Your task to perform on an android device: Open Youtube and go to the subscriptions tab Image 0: 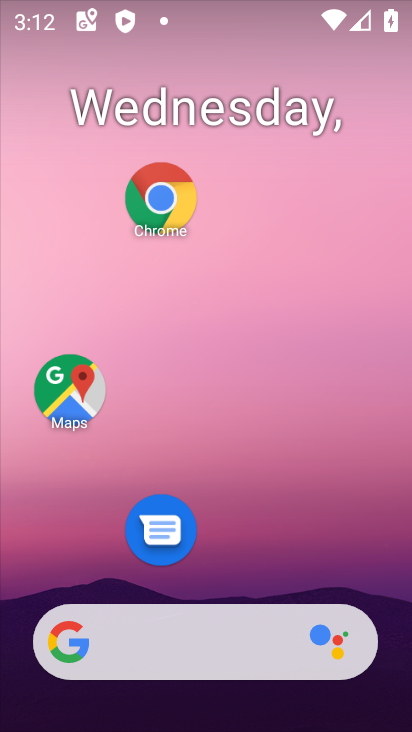
Step 0: click (409, 522)
Your task to perform on an android device: Open Youtube and go to the subscriptions tab Image 1: 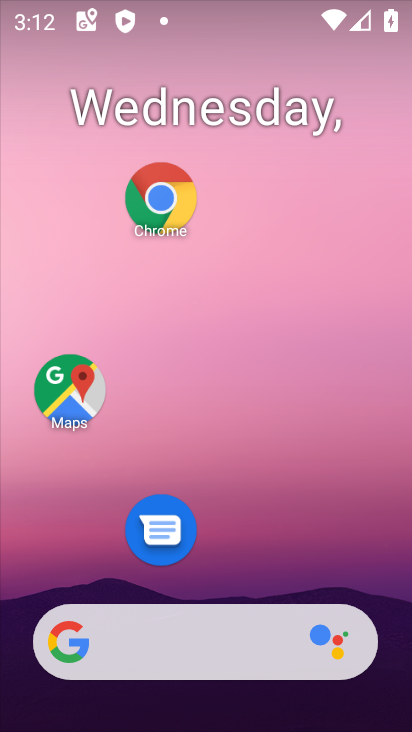
Step 1: drag from (247, 645) to (293, 248)
Your task to perform on an android device: Open Youtube and go to the subscriptions tab Image 2: 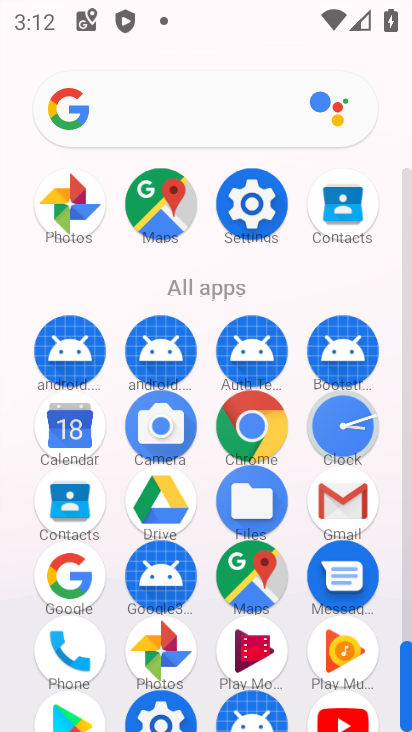
Step 2: click (345, 721)
Your task to perform on an android device: Open Youtube and go to the subscriptions tab Image 3: 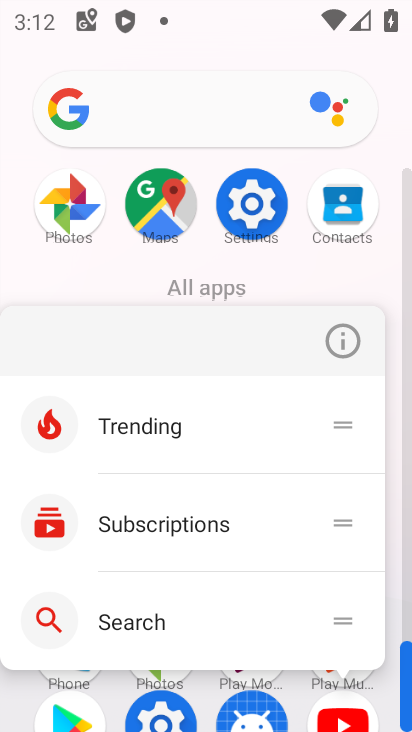
Step 3: click (162, 520)
Your task to perform on an android device: Open Youtube and go to the subscriptions tab Image 4: 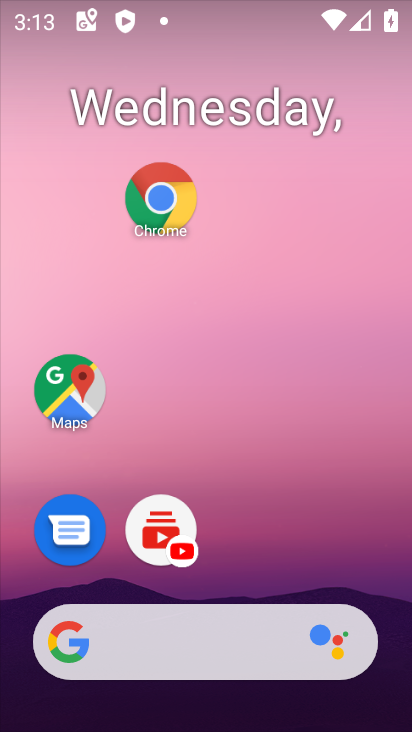
Step 4: drag from (309, 555) to (285, 140)
Your task to perform on an android device: Open Youtube and go to the subscriptions tab Image 5: 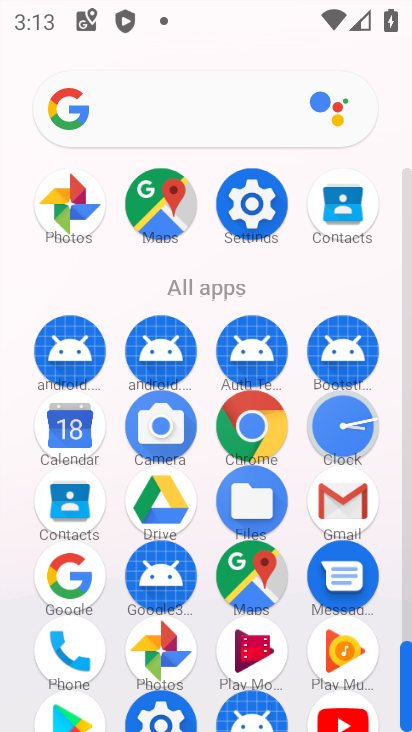
Step 5: click (346, 719)
Your task to perform on an android device: Open Youtube and go to the subscriptions tab Image 6: 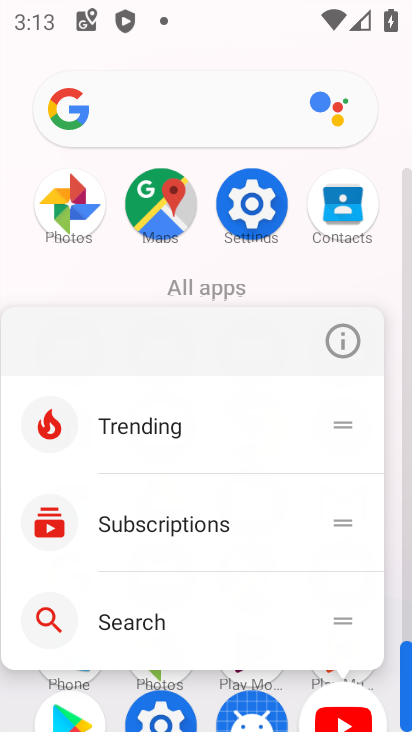
Step 6: click (351, 707)
Your task to perform on an android device: Open Youtube and go to the subscriptions tab Image 7: 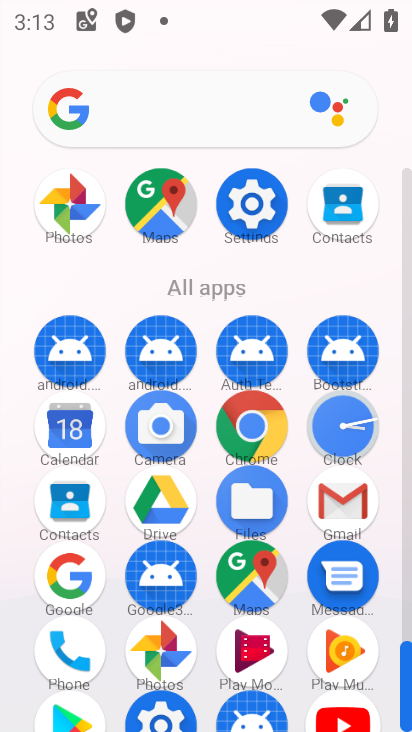
Step 7: click (352, 705)
Your task to perform on an android device: Open Youtube and go to the subscriptions tab Image 8: 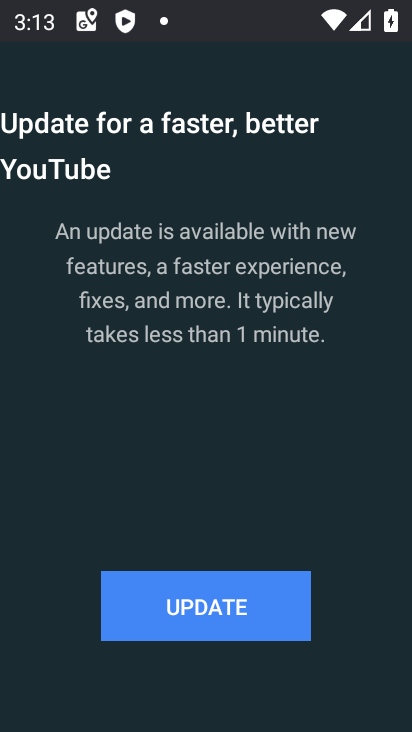
Step 8: click (182, 258)
Your task to perform on an android device: Open Youtube and go to the subscriptions tab Image 9: 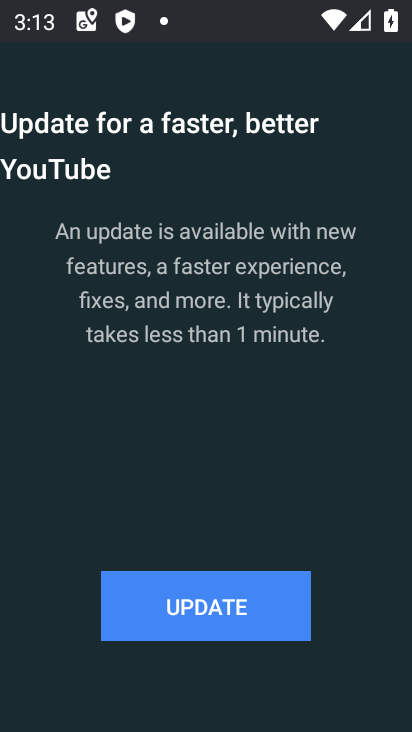
Step 9: click (200, 607)
Your task to perform on an android device: Open Youtube and go to the subscriptions tab Image 10: 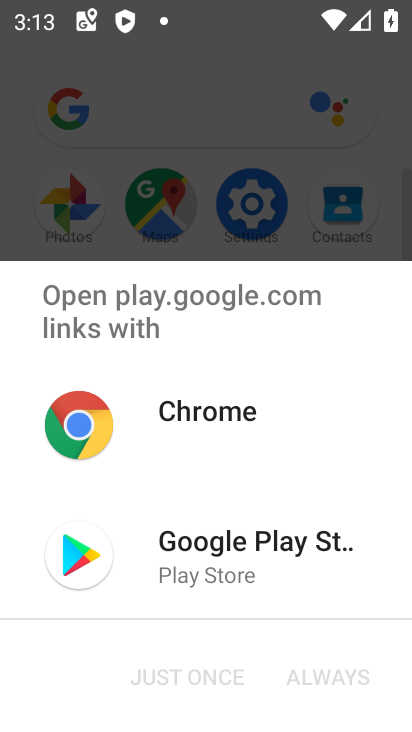
Step 10: click (258, 556)
Your task to perform on an android device: Open Youtube and go to the subscriptions tab Image 11: 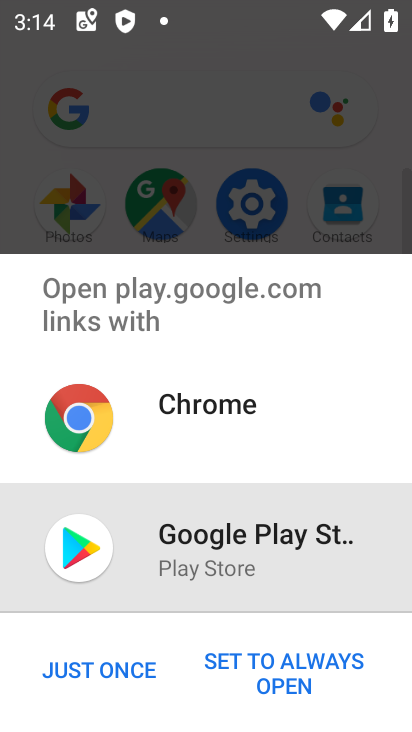
Step 11: click (202, 544)
Your task to perform on an android device: Open Youtube and go to the subscriptions tab Image 12: 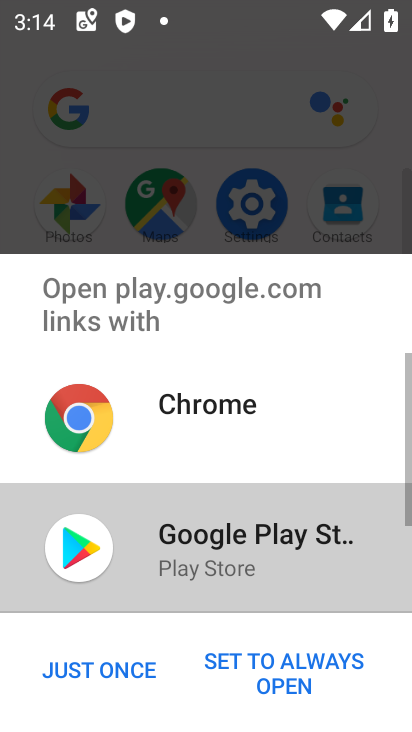
Step 12: click (203, 543)
Your task to perform on an android device: Open Youtube and go to the subscriptions tab Image 13: 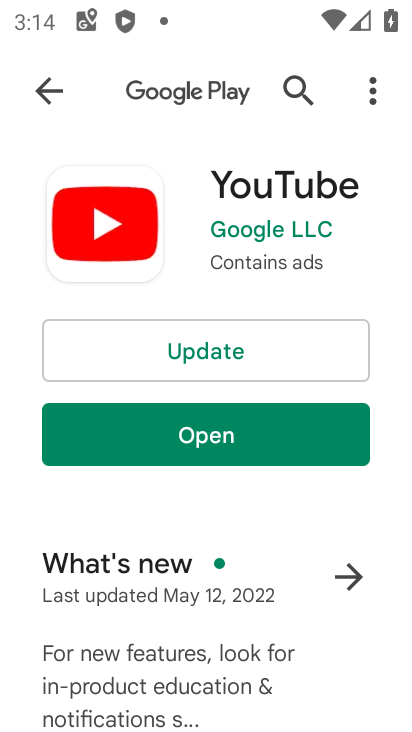
Step 13: click (202, 443)
Your task to perform on an android device: Open Youtube and go to the subscriptions tab Image 14: 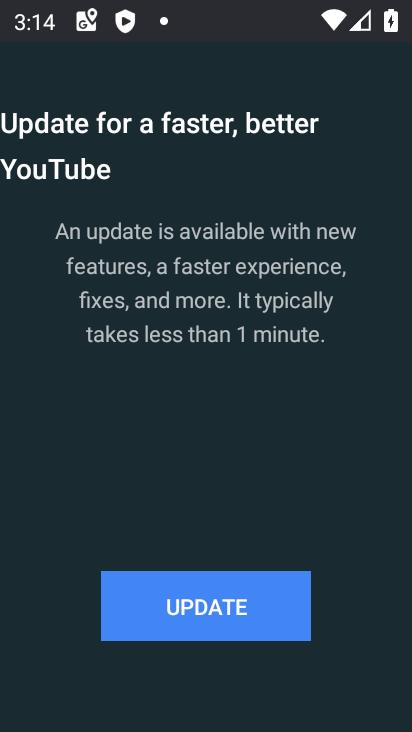
Step 14: click (189, 602)
Your task to perform on an android device: Open Youtube and go to the subscriptions tab Image 15: 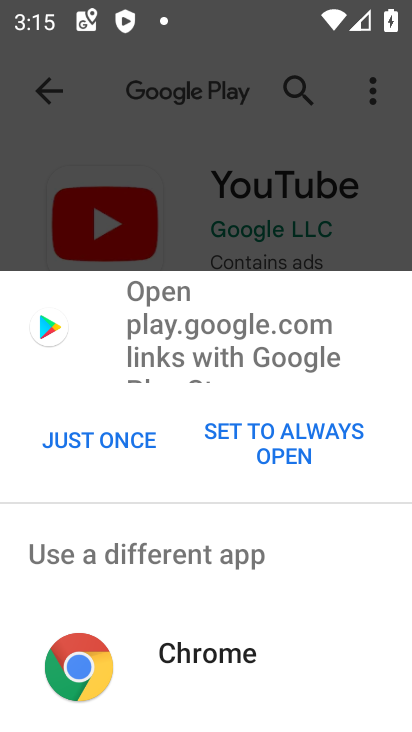
Step 15: click (203, 653)
Your task to perform on an android device: Open Youtube and go to the subscriptions tab Image 16: 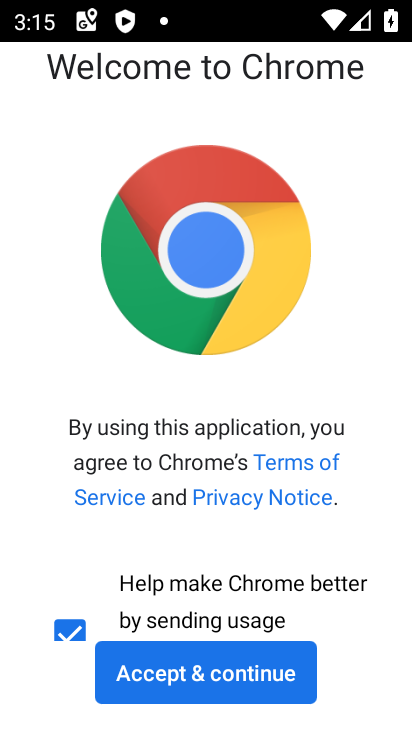
Step 16: click (216, 663)
Your task to perform on an android device: Open Youtube and go to the subscriptions tab Image 17: 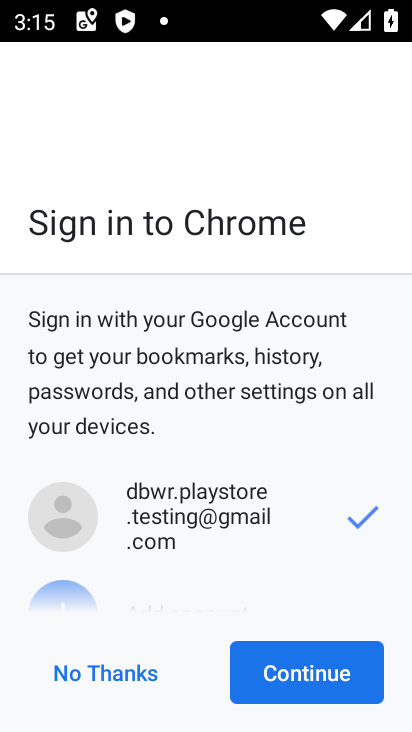
Step 17: click (317, 671)
Your task to perform on an android device: Open Youtube and go to the subscriptions tab Image 18: 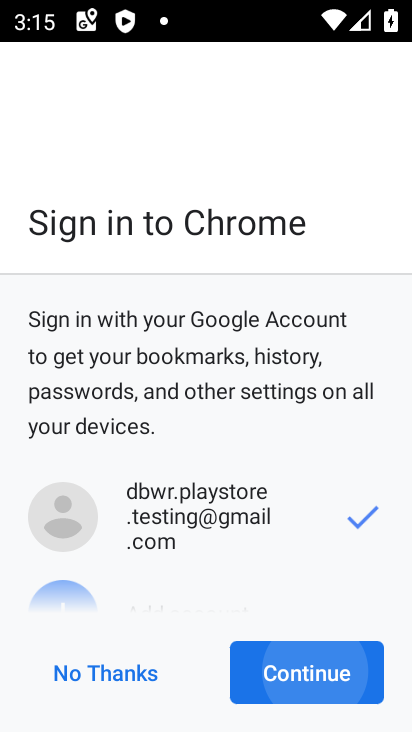
Step 18: click (317, 671)
Your task to perform on an android device: Open Youtube and go to the subscriptions tab Image 19: 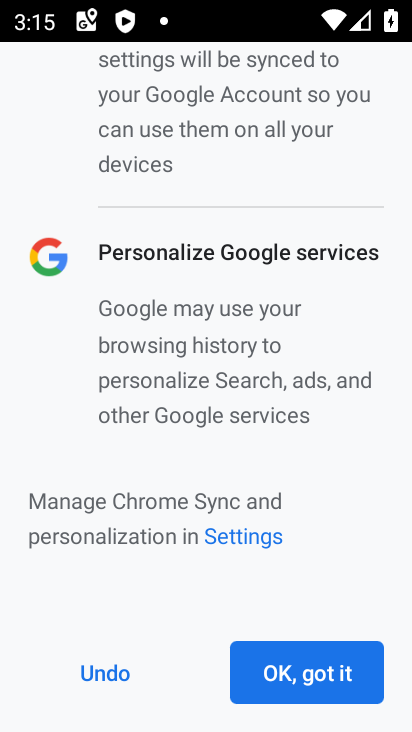
Step 19: click (317, 671)
Your task to perform on an android device: Open Youtube and go to the subscriptions tab Image 20: 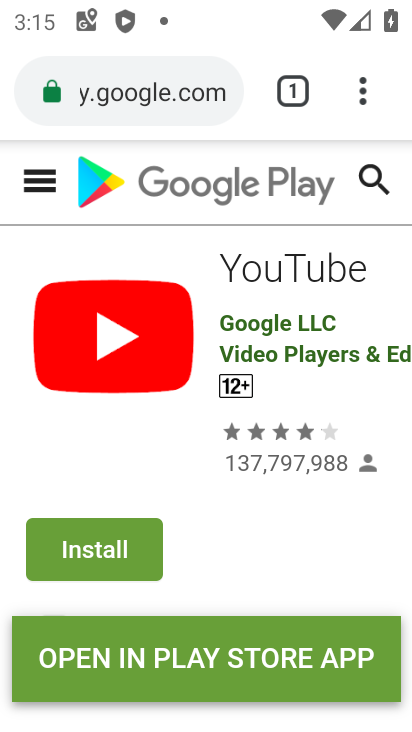
Step 20: press back button
Your task to perform on an android device: Open Youtube and go to the subscriptions tab Image 21: 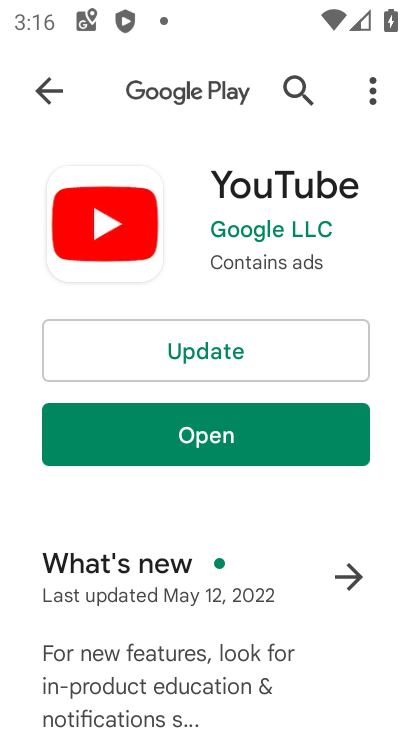
Step 21: click (202, 434)
Your task to perform on an android device: Open Youtube and go to the subscriptions tab Image 22: 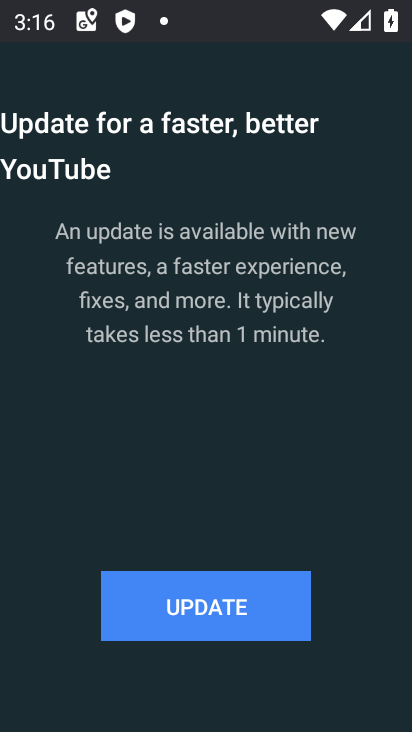
Step 22: click (231, 600)
Your task to perform on an android device: Open Youtube and go to the subscriptions tab Image 23: 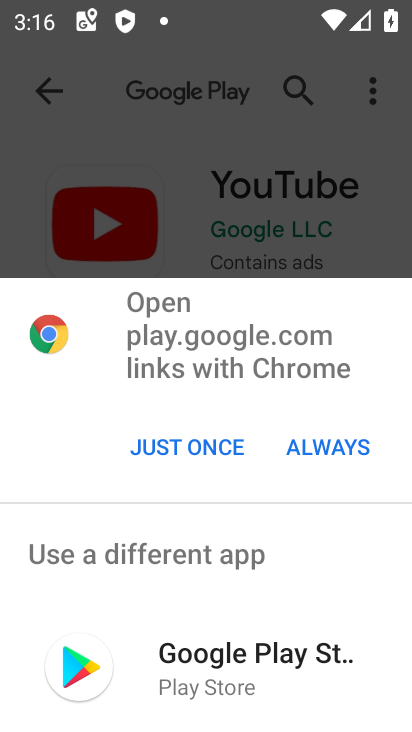
Step 23: click (212, 673)
Your task to perform on an android device: Open Youtube and go to the subscriptions tab Image 24: 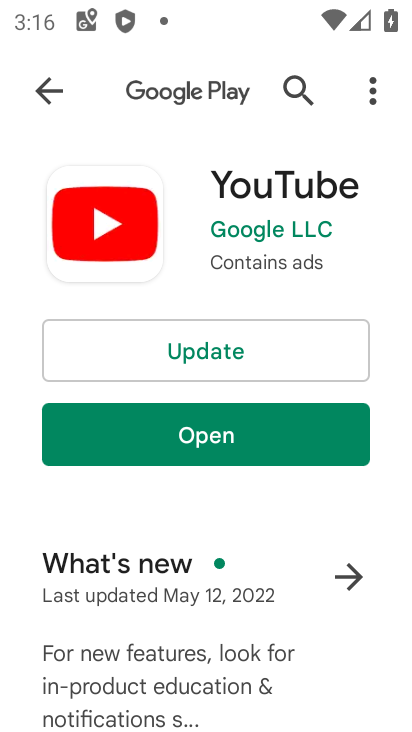
Step 24: click (179, 436)
Your task to perform on an android device: Open Youtube and go to the subscriptions tab Image 25: 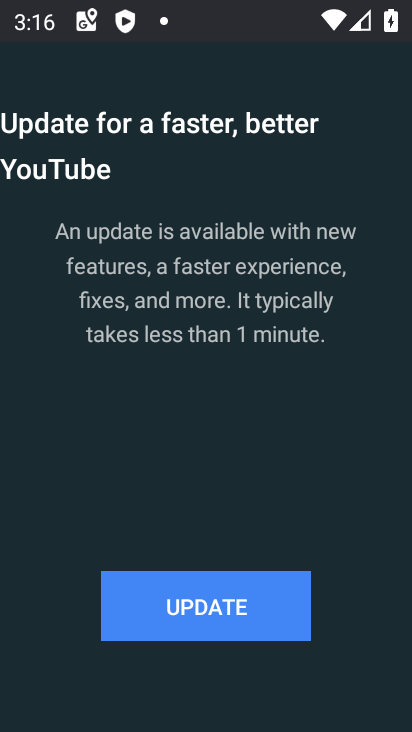
Step 25: click (236, 595)
Your task to perform on an android device: Open Youtube and go to the subscriptions tab Image 26: 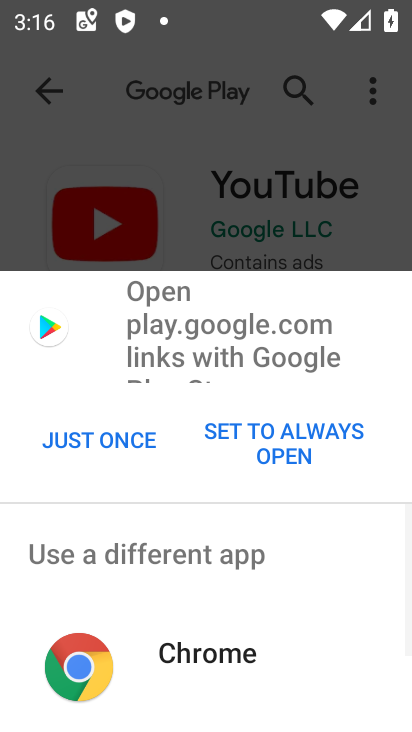
Step 26: click (232, 665)
Your task to perform on an android device: Open Youtube and go to the subscriptions tab Image 27: 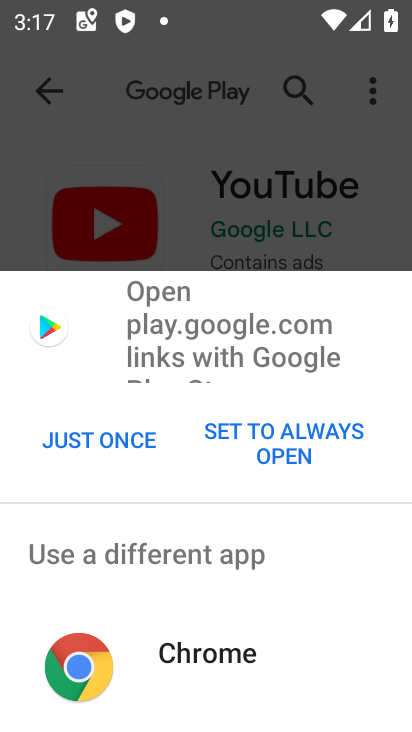
Step 27: click (191, 641)
Your task to perform on an android device: Open Youtube and go to the subscriptions tab Image 28: 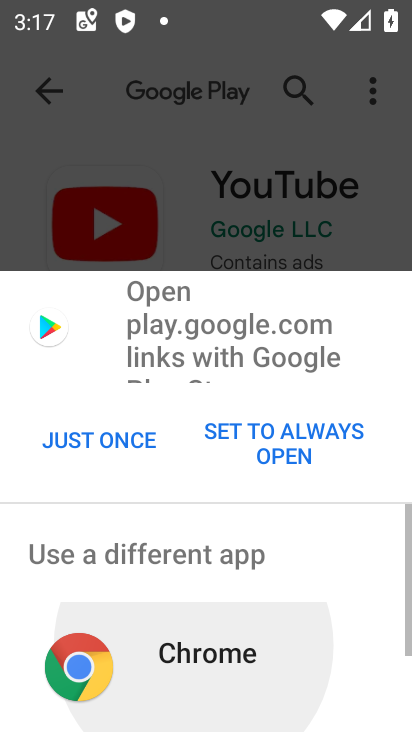
Step 28: click (191, 641)
Your task to perform on an android device: Open Youtube and go to the subscriptions tab Image 29: 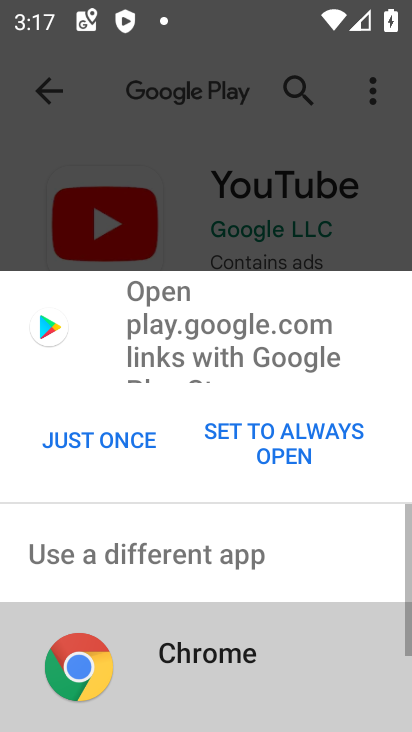
Step 29: click (191, 641)
Your task to perform on an android device: Open Youtube and go to the subscriptions tab Image 30: 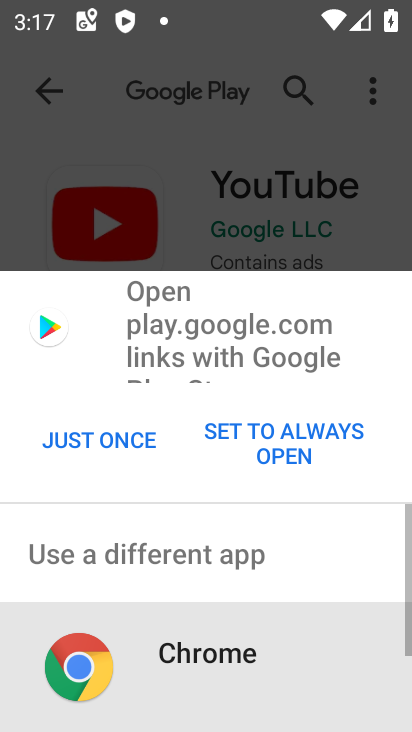
Step 30: click (180, 650)
Your task to perform on an android device: Open Youtube and go to the subscriptions tab Image 31: 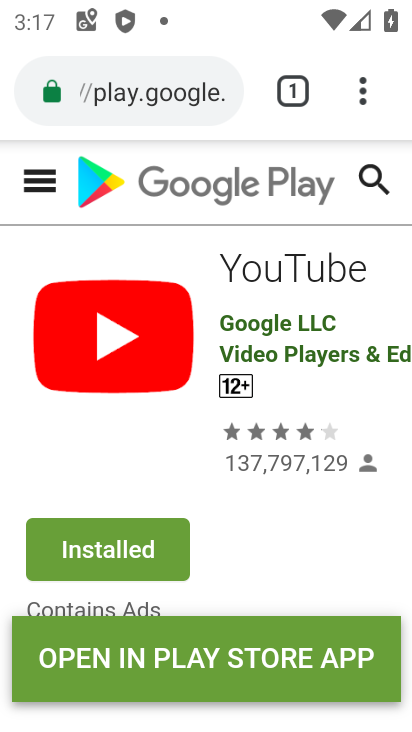
Step 31: click (118, 548)
Your task to perform on an android device: Open Youtube and go to the subscriptions tab Image 32: 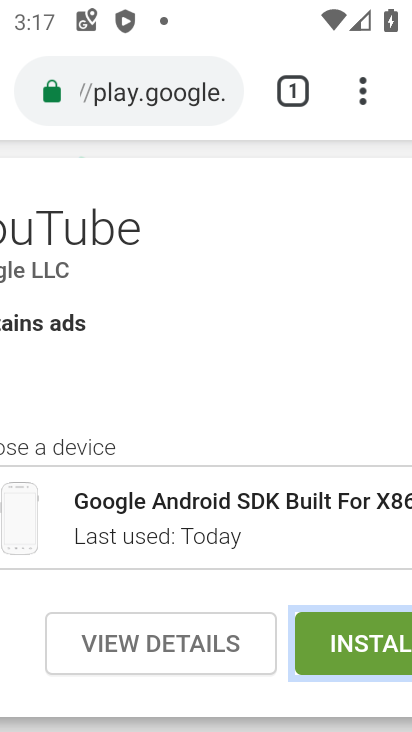
Step 32: task complete